Your task to perform on an android device: turn on sleep mode Image 0: 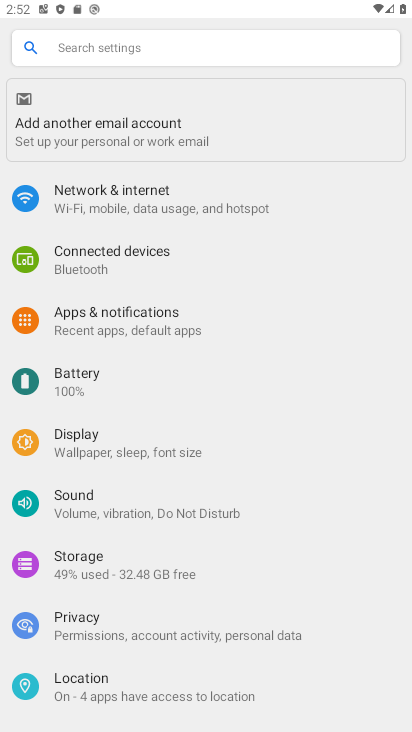
Step 0: press home button
Your task to perform on an android device: turn on sleep mode Image 1: 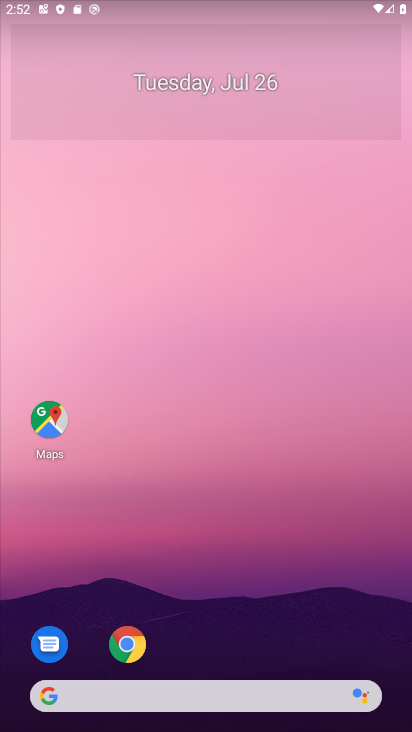
Step 1: click (224, 1)
Your task to perform on an android device: turn on sleep mode Image 2: 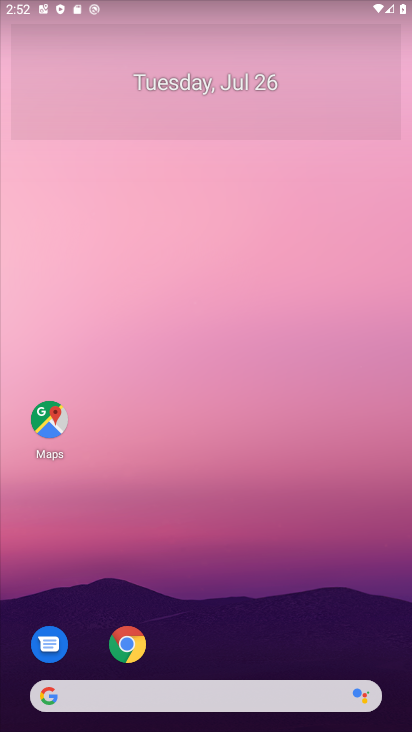
Step 2: drag from (231, 619) to (223, 54)
Your task to perform on an android device: turn on sleep mode Image 3: 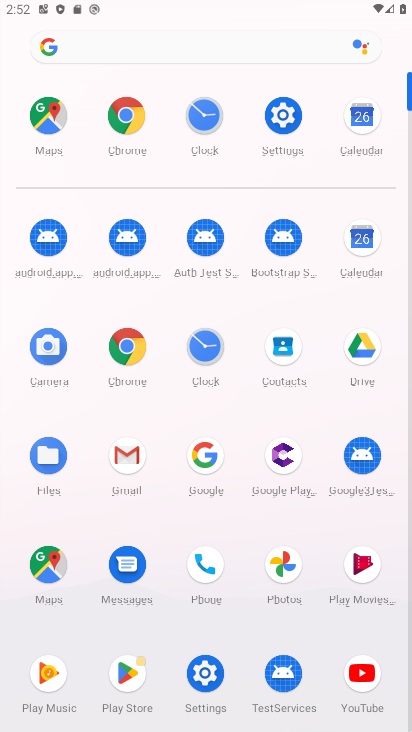
Step 3: click (279, 123)
Your task to perform on an android device: turn on sleep mode Image 4: 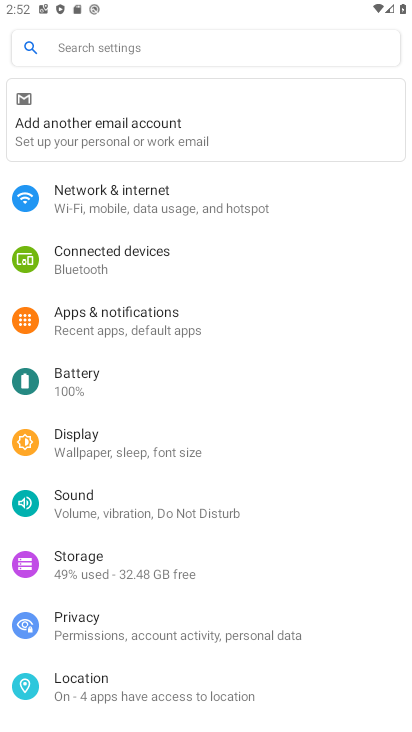
Step 4: click (87, 442)
Your task to perform on an android device: turn on sleep mode Image 5: 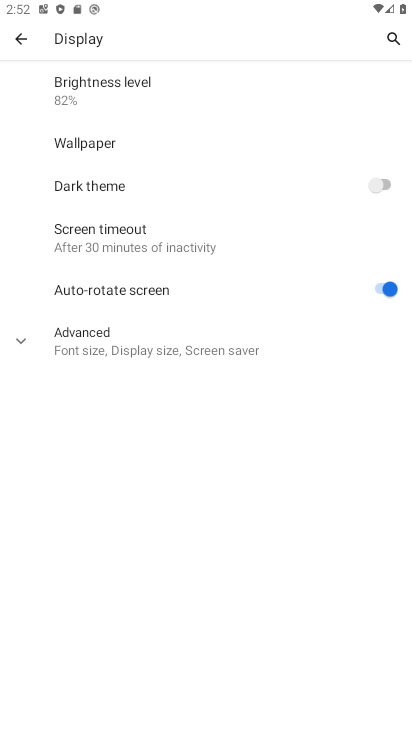
Step 5: click (22, 342)
Your task to perform on an android device: turn on sleep mode Image 6: 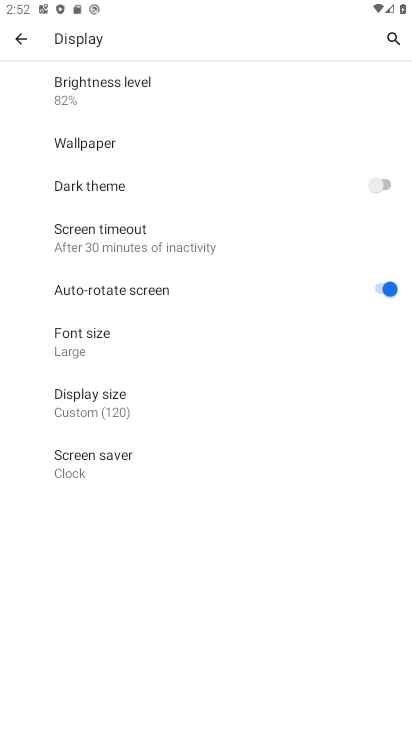
Step 6: task complete